Your task to perform on an android device: Open Chrome and go to the settings page Image 0: 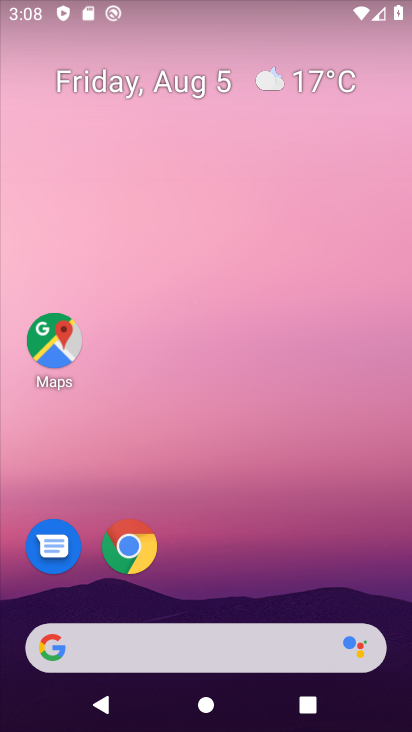
Step 0: press home button
Your task to perform on an android device: Open Chrome and go to the settings page Image 1: 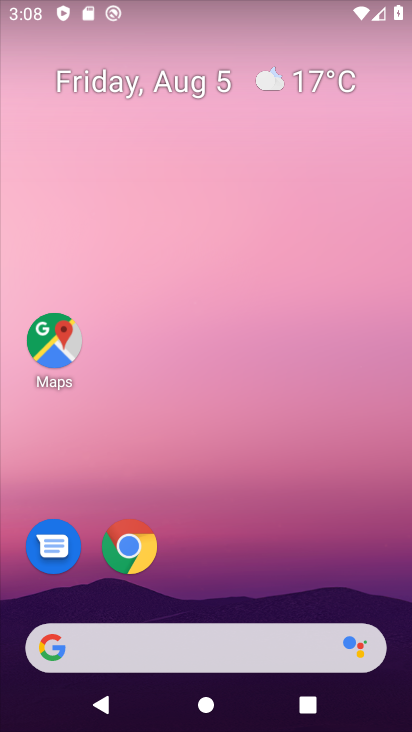
Step 1: drag from (235, 578) to (268, 83)
Your task to perform on an android device: Open Chrome and go to the settings page Image 2: 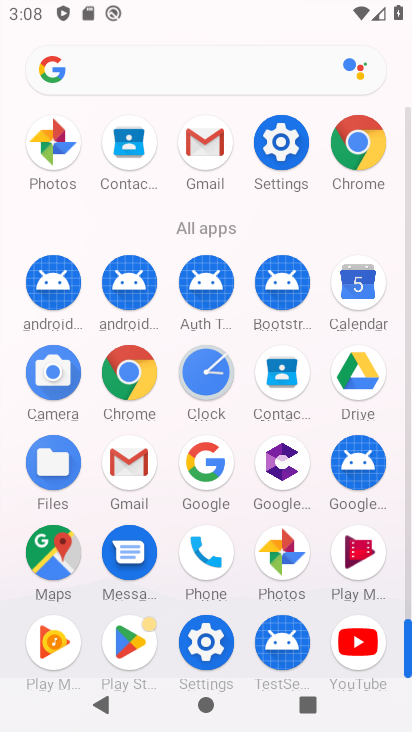
Step 2: click (128, 371)
Your task to perform on an android device: Open Chrome and go to the settings page Image 3: 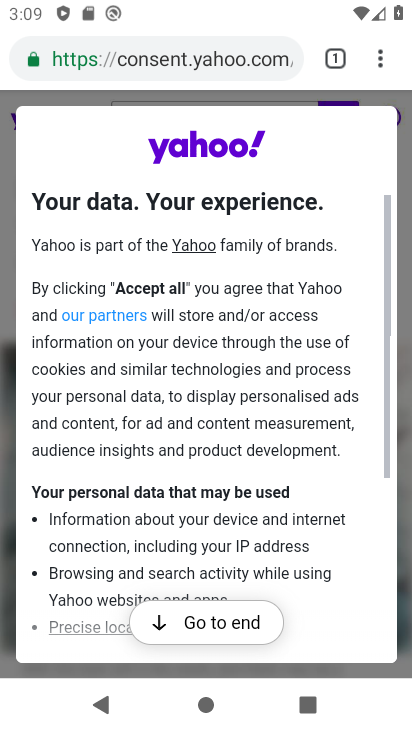
Step 3: click (379, 61)
Your task to perform on an android device: Open Chrome and go to the settings page Image 4: 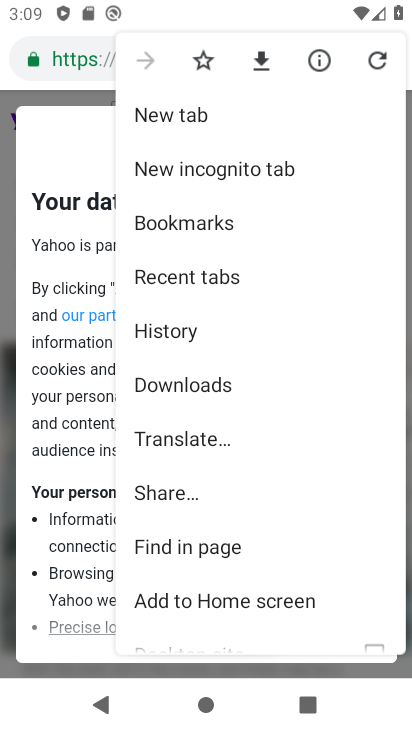
Step 4: drag from (285, 477) to (304, 352)
Your task to perform on an android device: Open Chrome and go to the settings page Image 5: 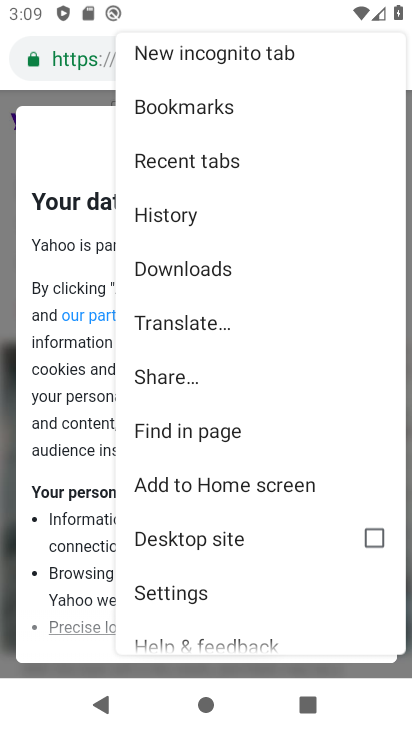
Step 5: click (185, 599)
Your task to perform on an android device: Open Chrome and go to the settings page Image 6: 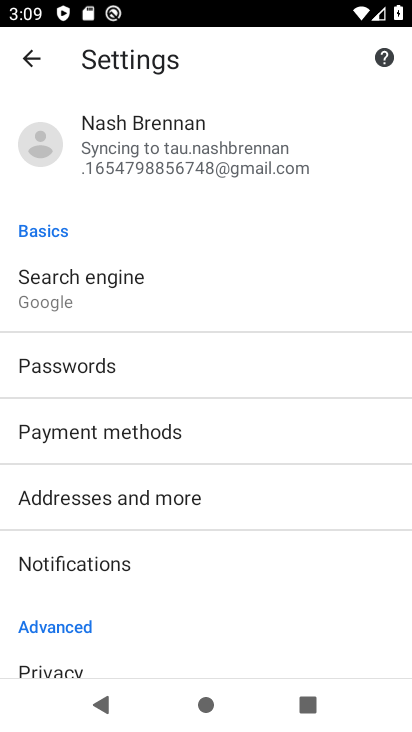
Step 6: task complete